Your task to perform on an android device: Go to settings Image 0: 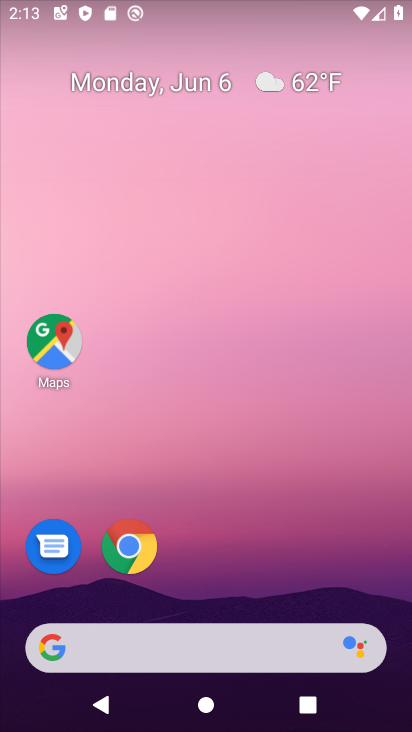
Step 0: drag from (286, 564) to (218, 174)
Your task to perform on an android device: Go to settings Image 1: 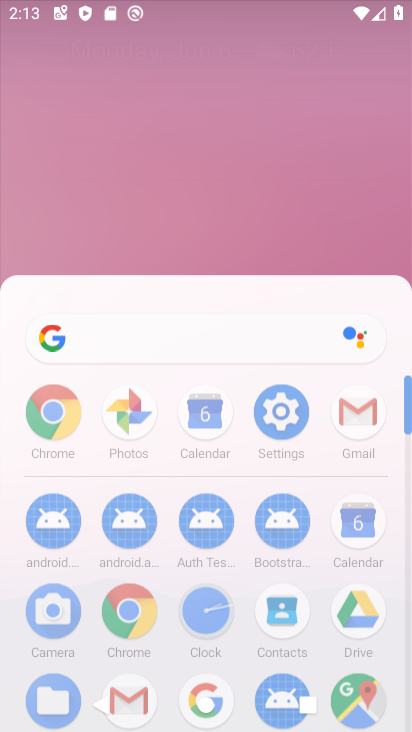
Step 1: click (216, 142)
Your task to perform on an android device: Go to settings Image 2: 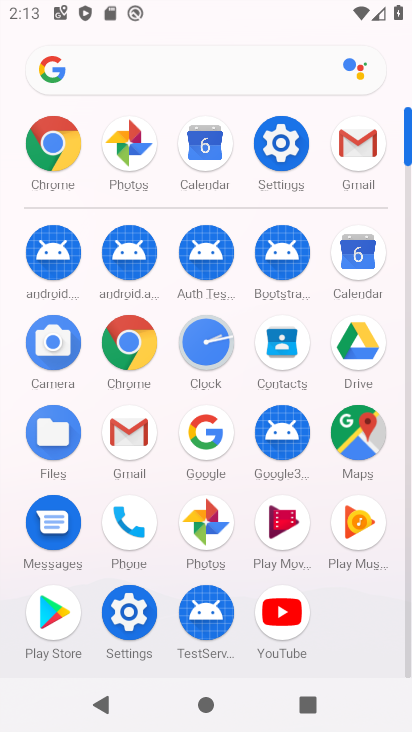
Step 2: click (279, 153)
Your task to perform on an android device: Go to settings Image 3: 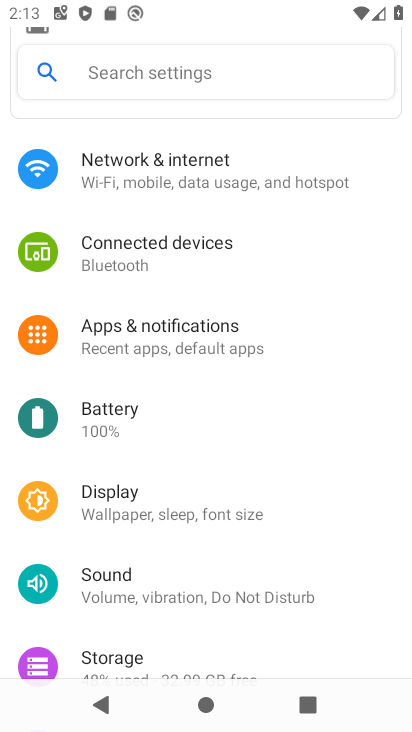
Step 3: task complete